Your task to perform on an android device: Search for apple airpods on amazon, select the first entry, and add it to the cart. Image 0: 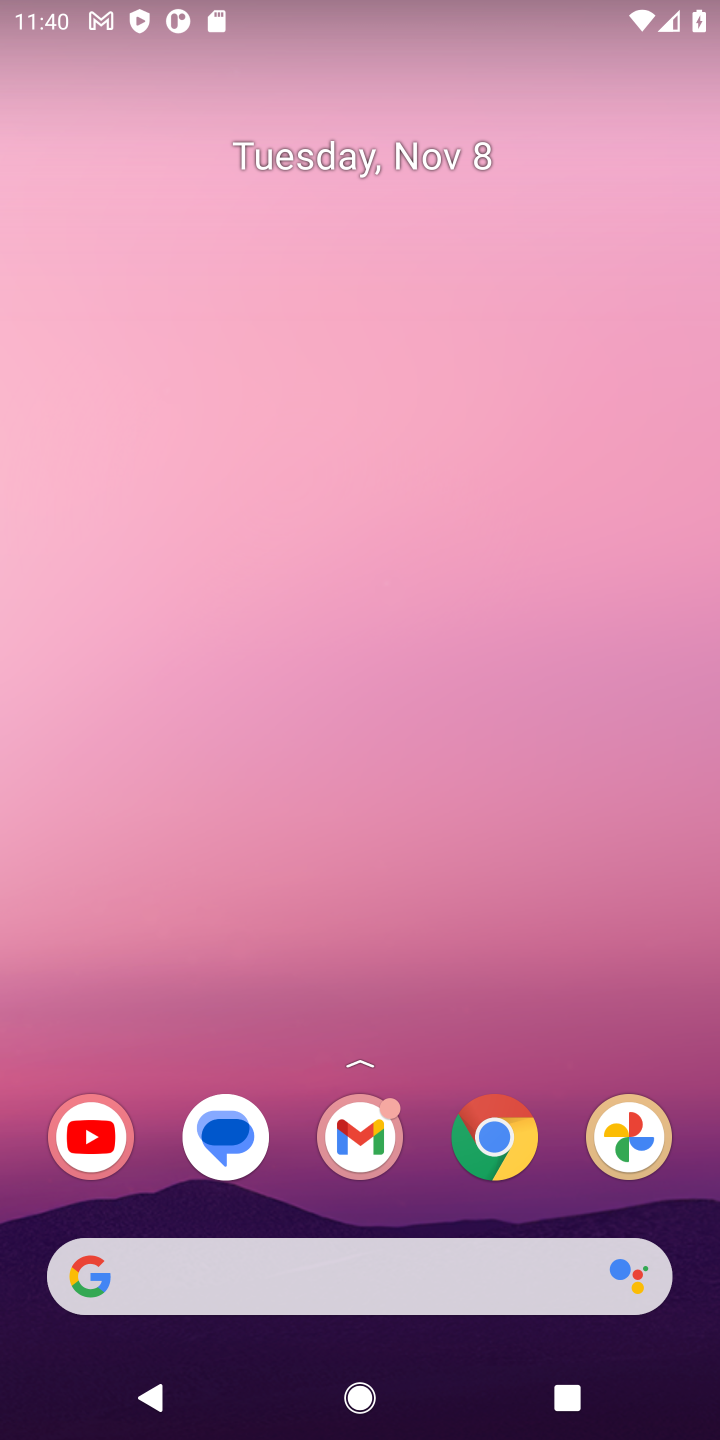
Step 0: click (497, 1140)
Your task to perform on an android device: Search for apple airpods on amazon, select the first entry, and add it to the cart. Image 1: 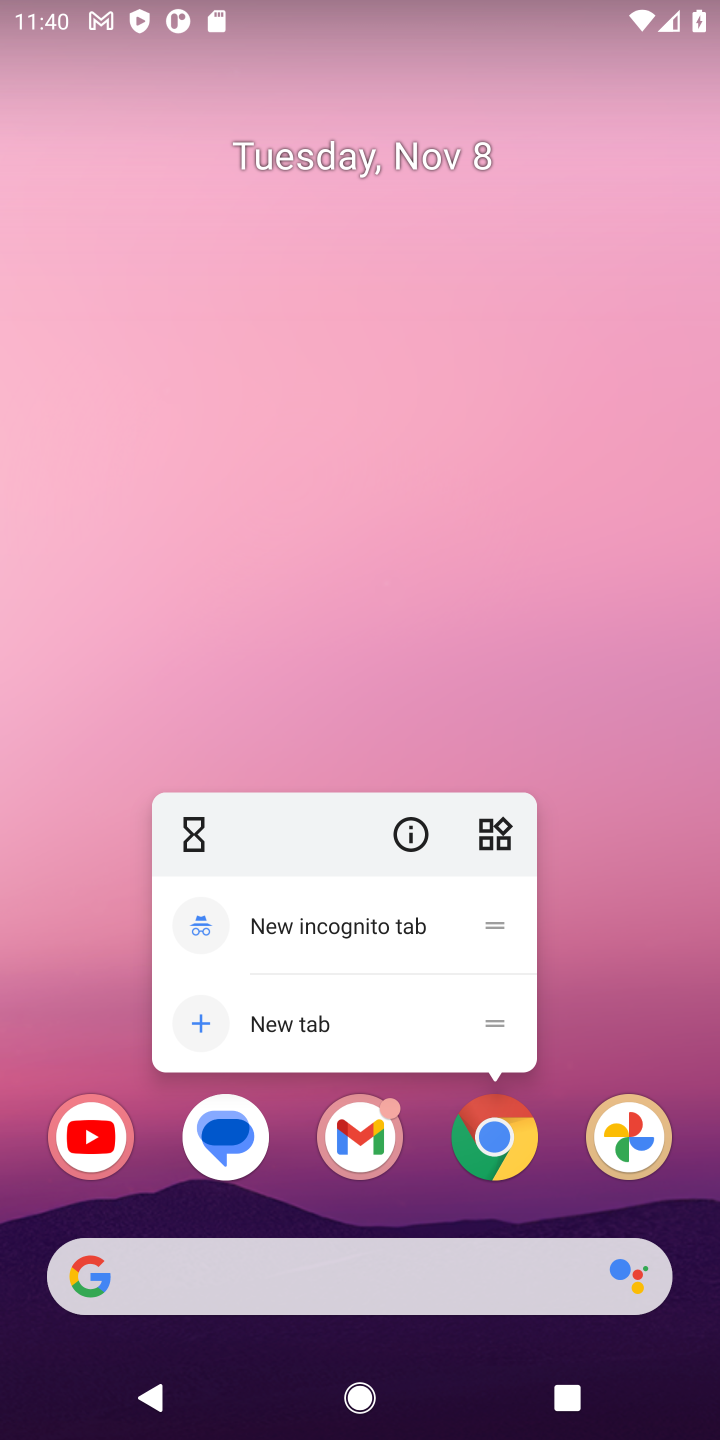
Step 1: click (499, 1134)
Your task to perform on an android device: Search for apple airpods on amazon, select the first entry, and add it to the cart. Image 2: 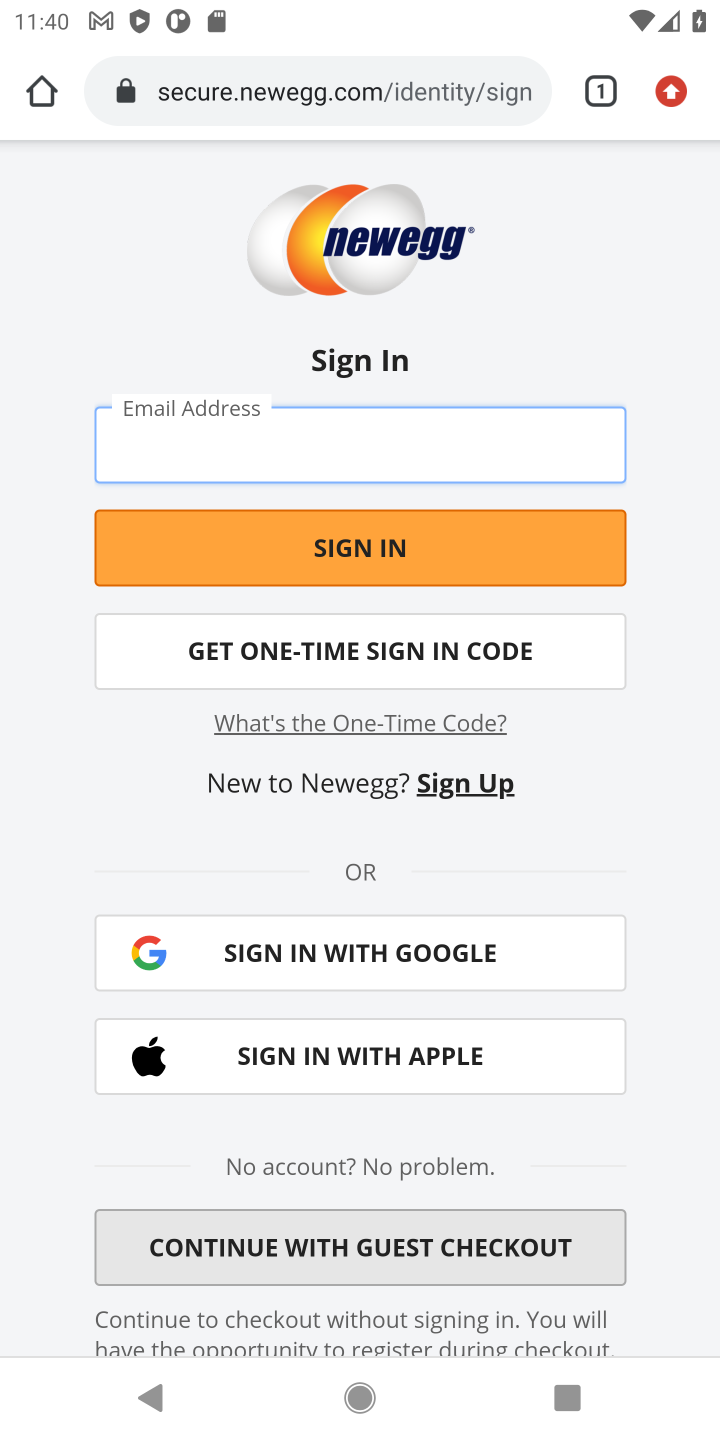
Step 2: click (309, 93)
Your task to perform on an android device: Search for apple airpods on amazon, select the first entry, and add it to the cart. Image 3: 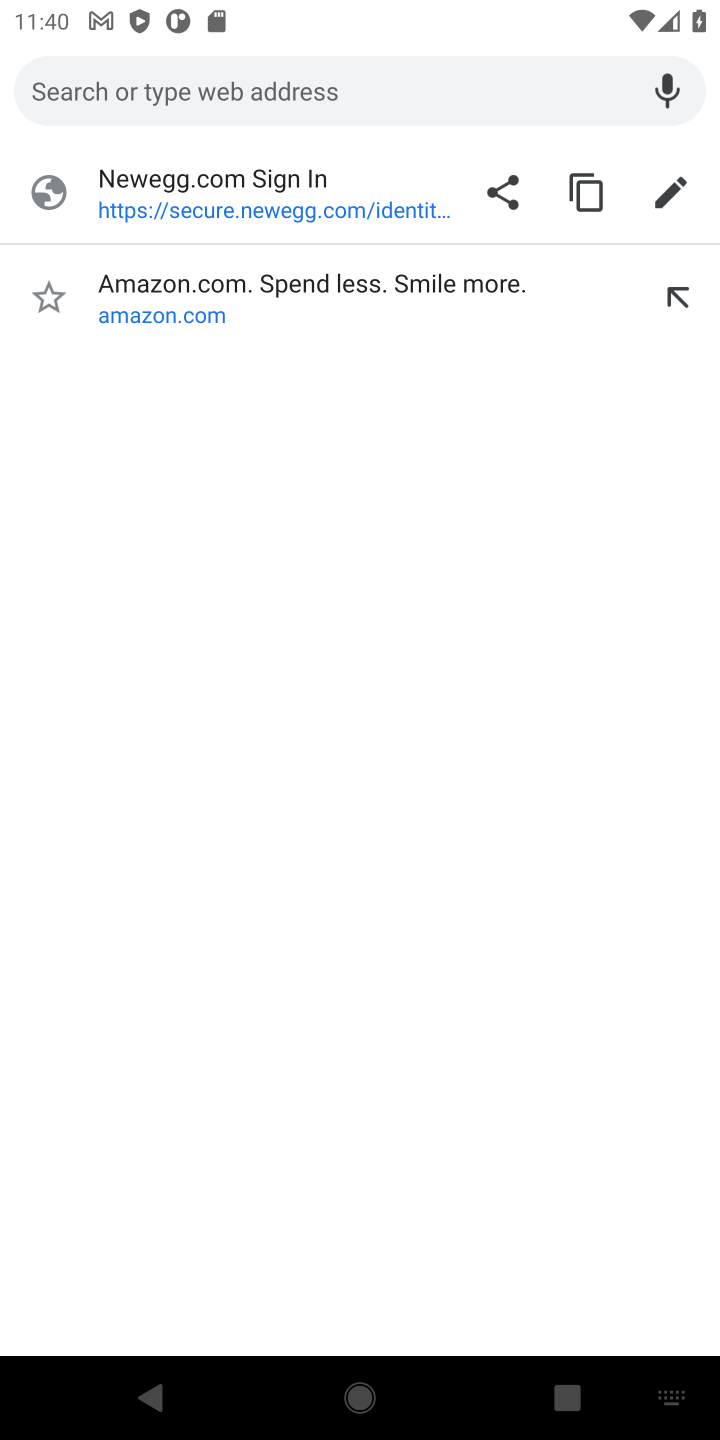
Step 3: type "amazon"
Your task to perform on an android device: Search for apple airpods on amazon, select the first entry, and add it to the cart. Image 4: 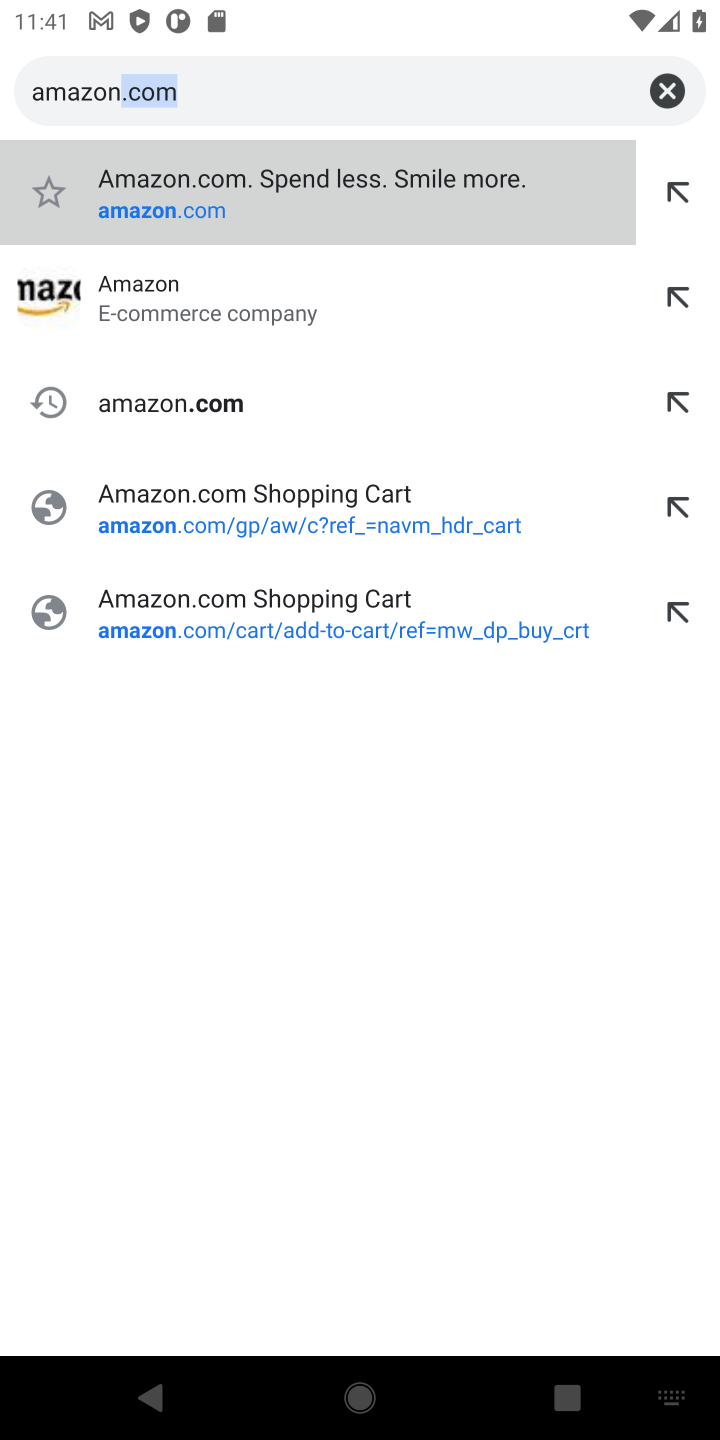
Step 4: click (301, 167)
Your task to perform on an android device: Search for apple airpods on amazon, select the first entry, and add it to the cart. Image 5: 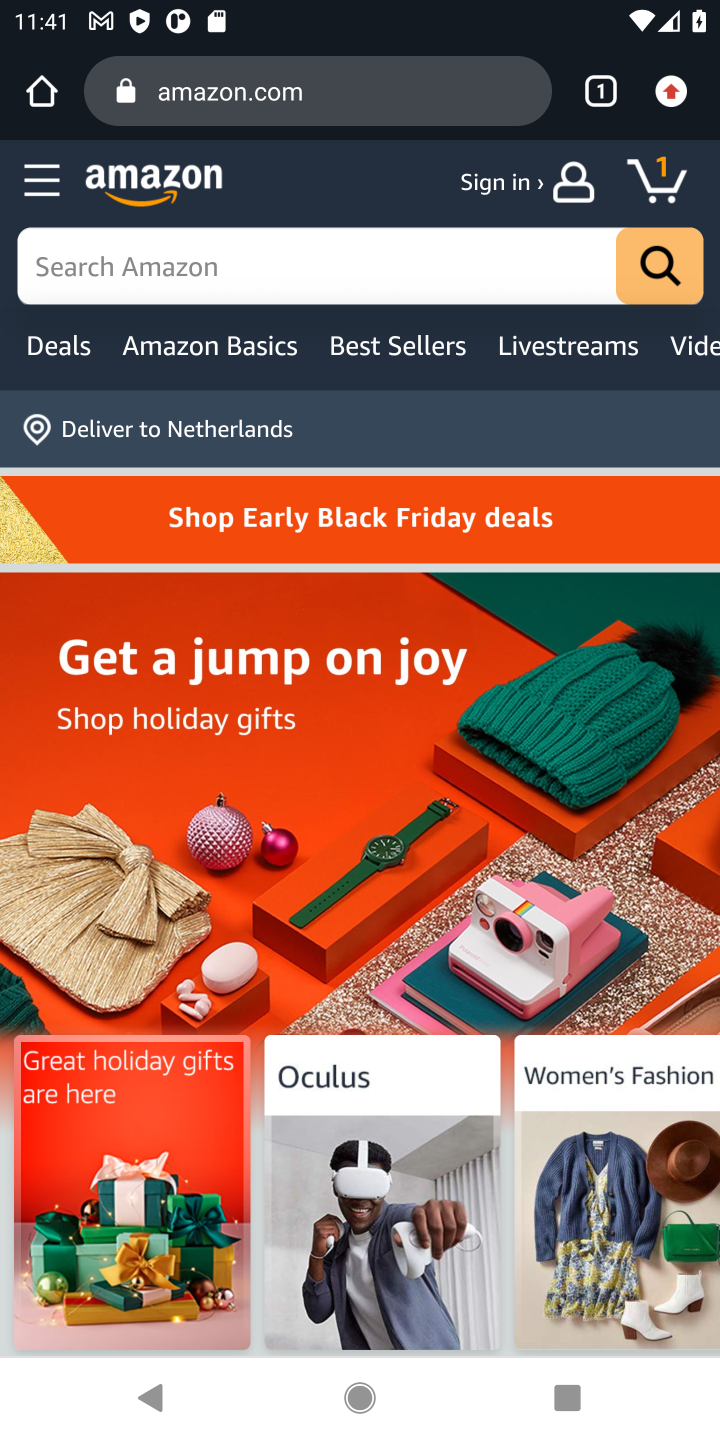
Step 5: click (370, 290)
Your task to perform on an android device: Search for apple airpods on amazon, select the first entry, and add it to the cart. Image 6: 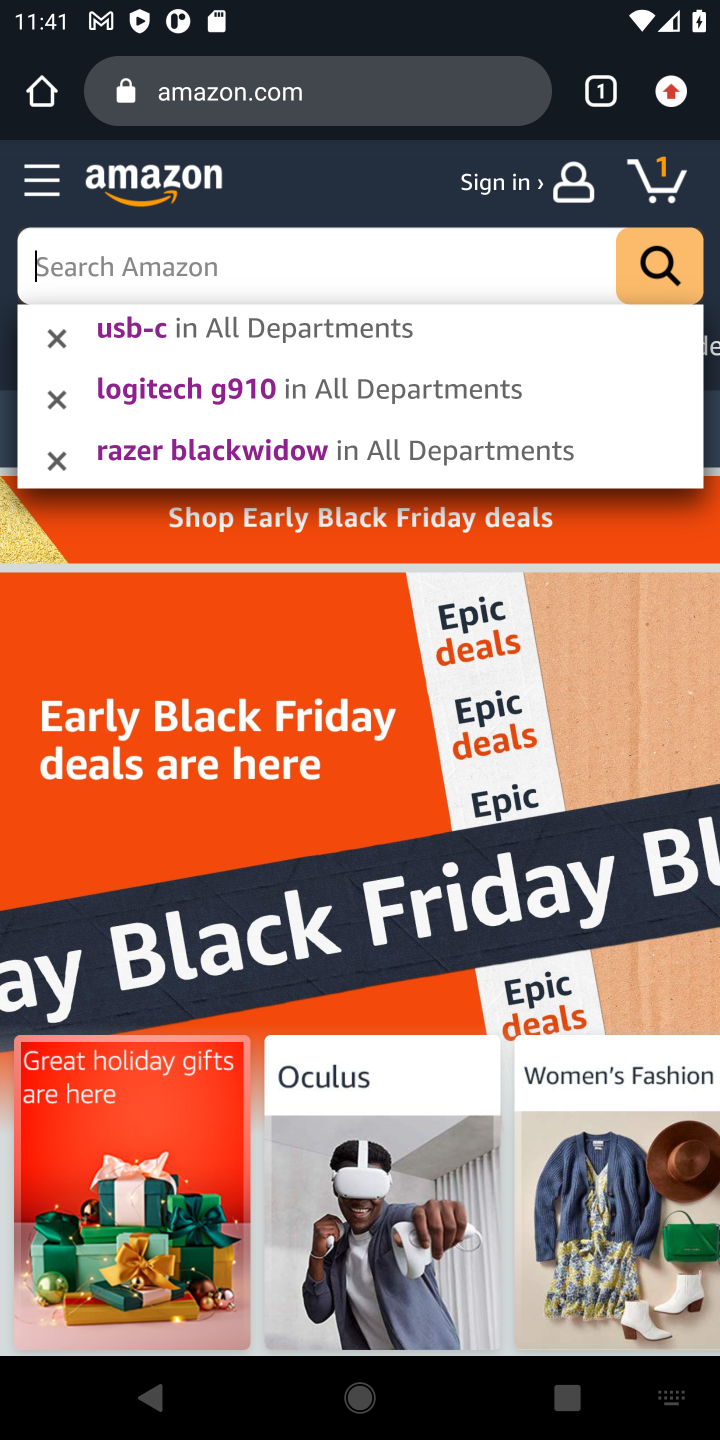
Step 6: type "apple airpods"
Your task to perform on an android device: Search for apple airpods on amazon, select the first entry, and add it to the cart. Image 7: 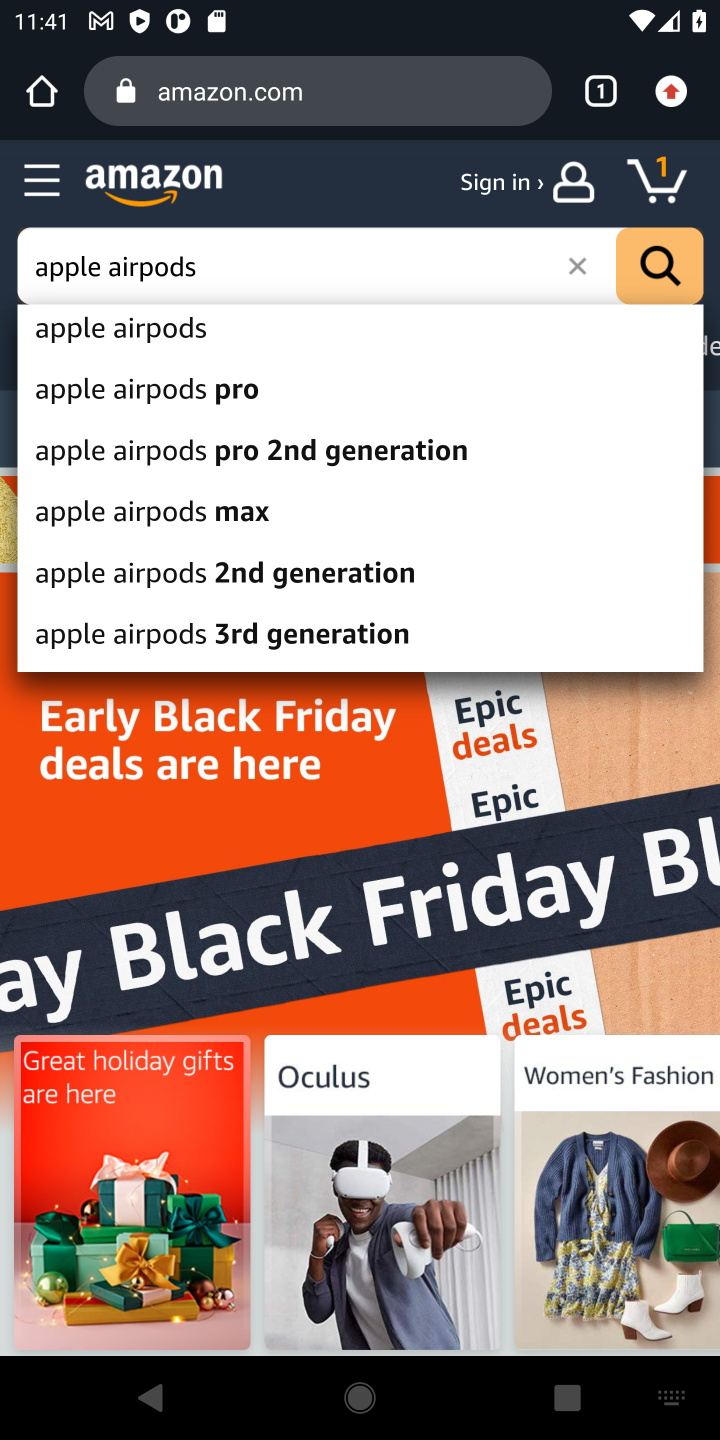
Step 7: click (137, 334)
Your task to perform on an android device: Search for apple airpods on amazon, select the first entry, and add it to the cart. Image 8: 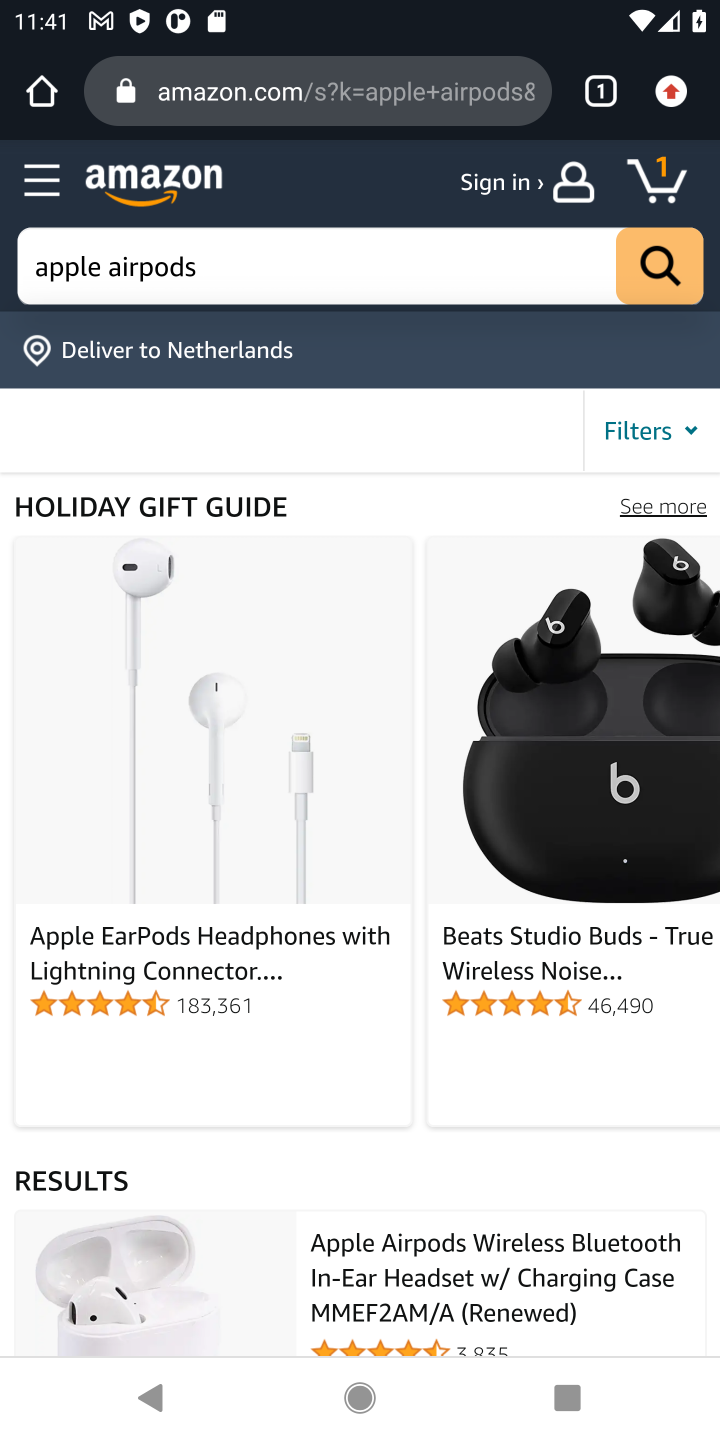
Step 8: click (471, 1267)
Your task to perform on an android device: Search for apple airpods on amazon, select the first entry, and add it to the cart. Image 9: 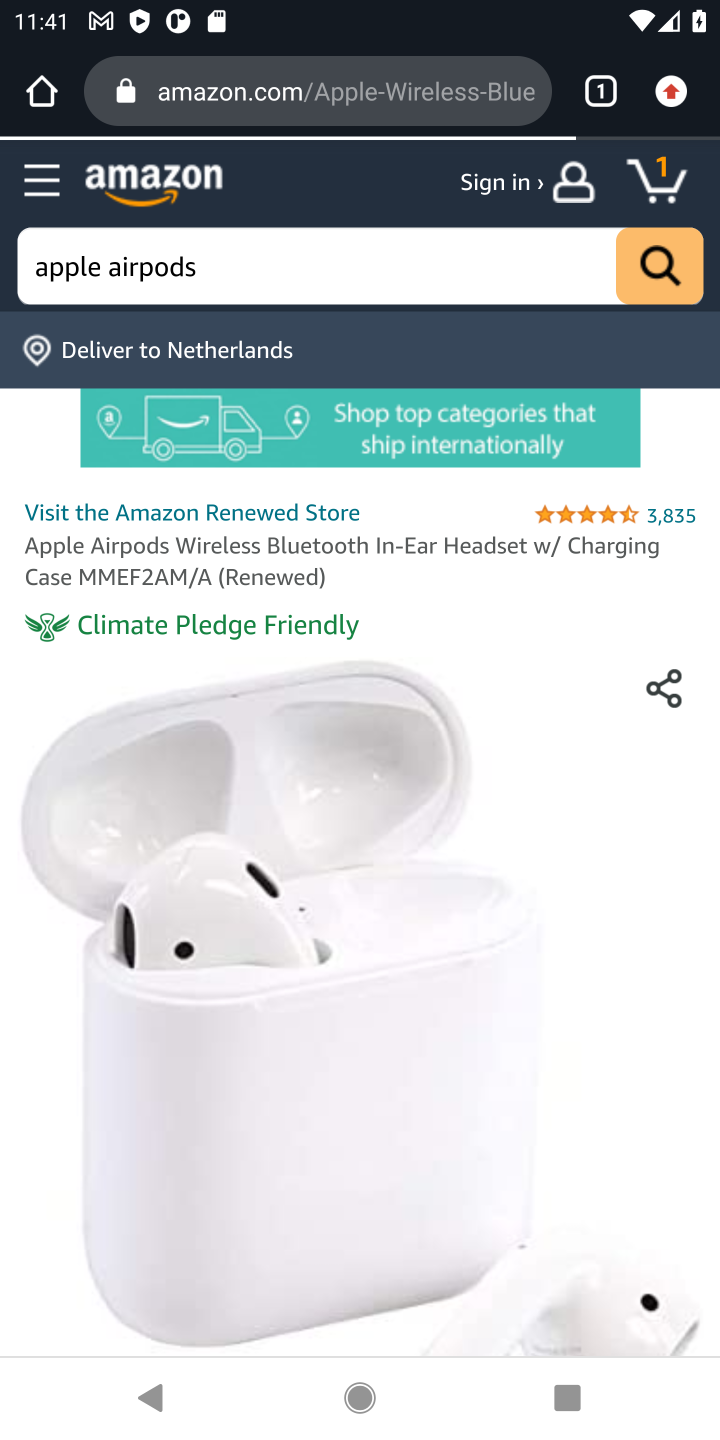
Step 9: drag from (486, 1196) to (487, 615)
Your task to perform on an android device: Search for apple airpods on amazon, select the first entry, and add it to the cart. Image 10: 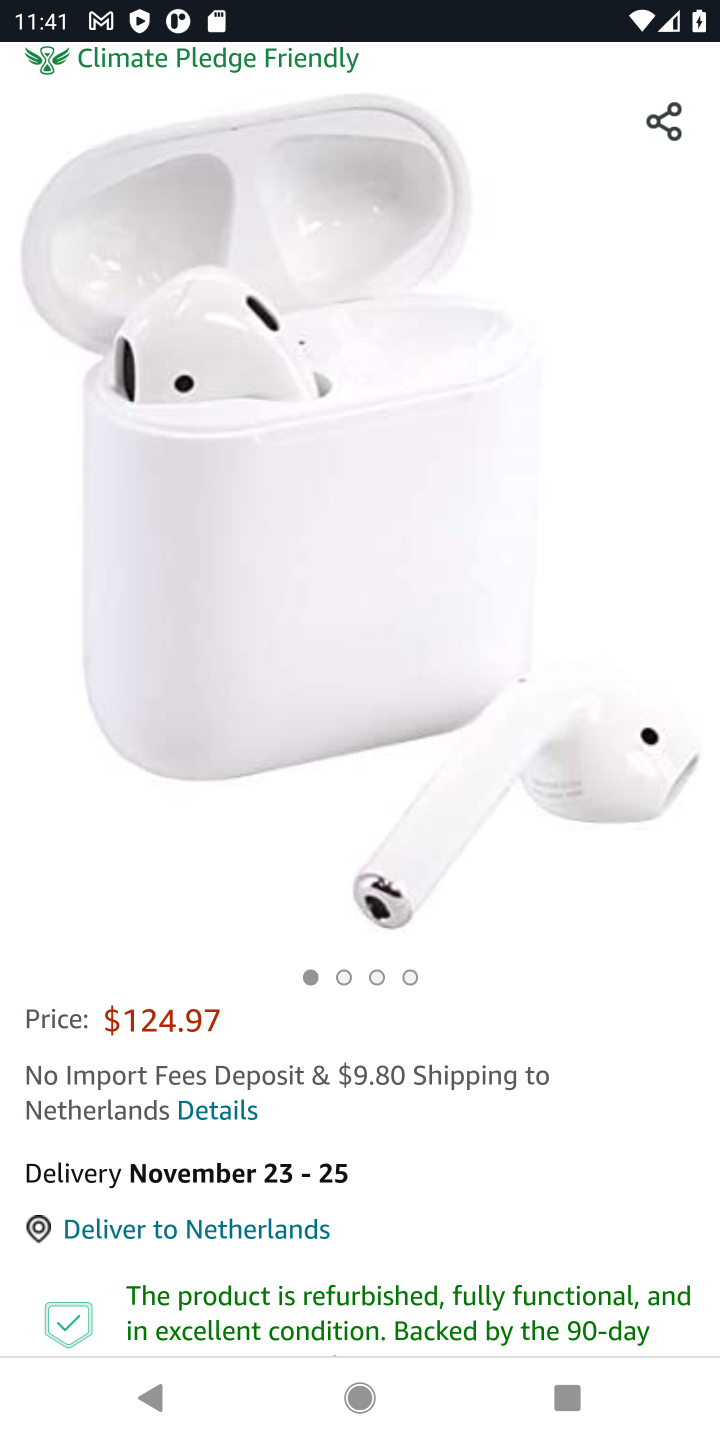
Step 10: drag from (457, 1052) to (487, 561)
Your task to perform on an android device: Search for apple airpods on amazon, select the first entry, and add it to the cart. Image 11: 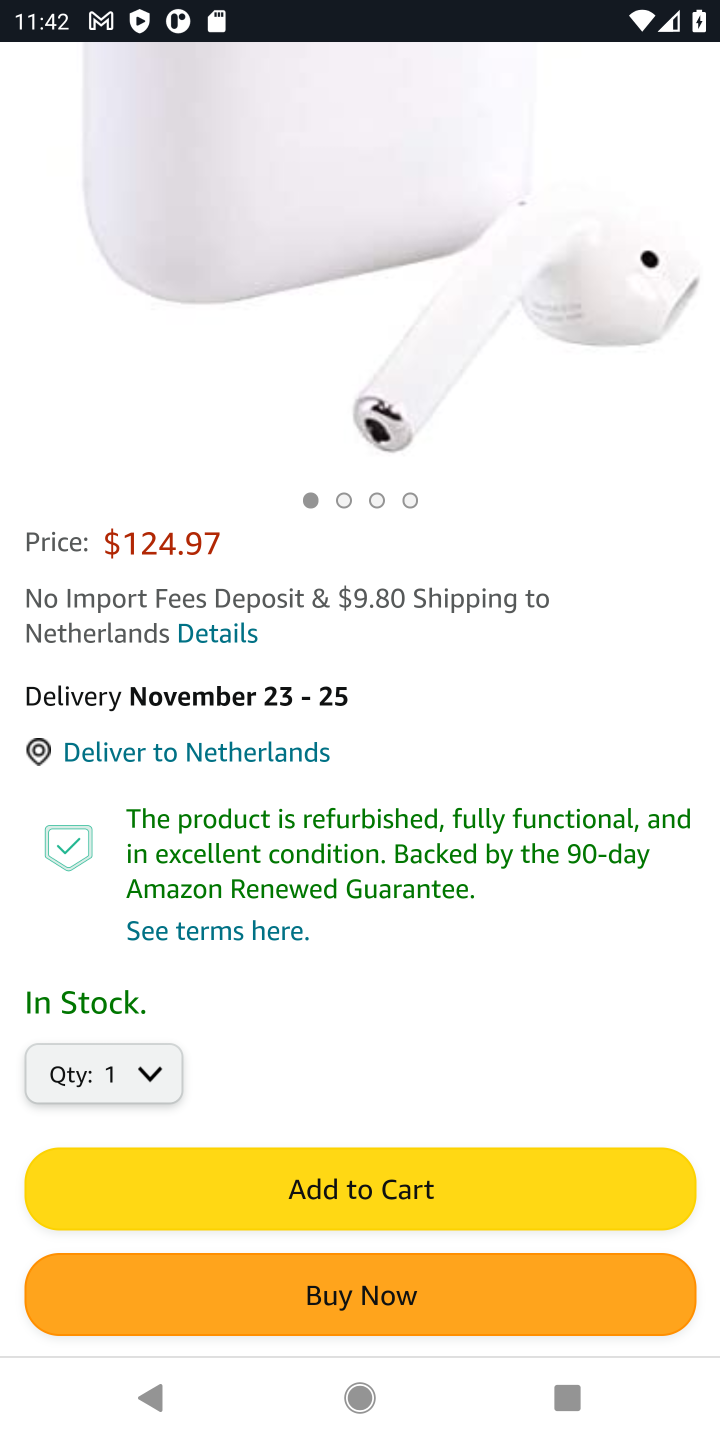
Step 11: click (395, 1196)
Your task to perform on an android device: Search for apple airpods on amazon, select the first entry, and add it to the cart. Image 12: 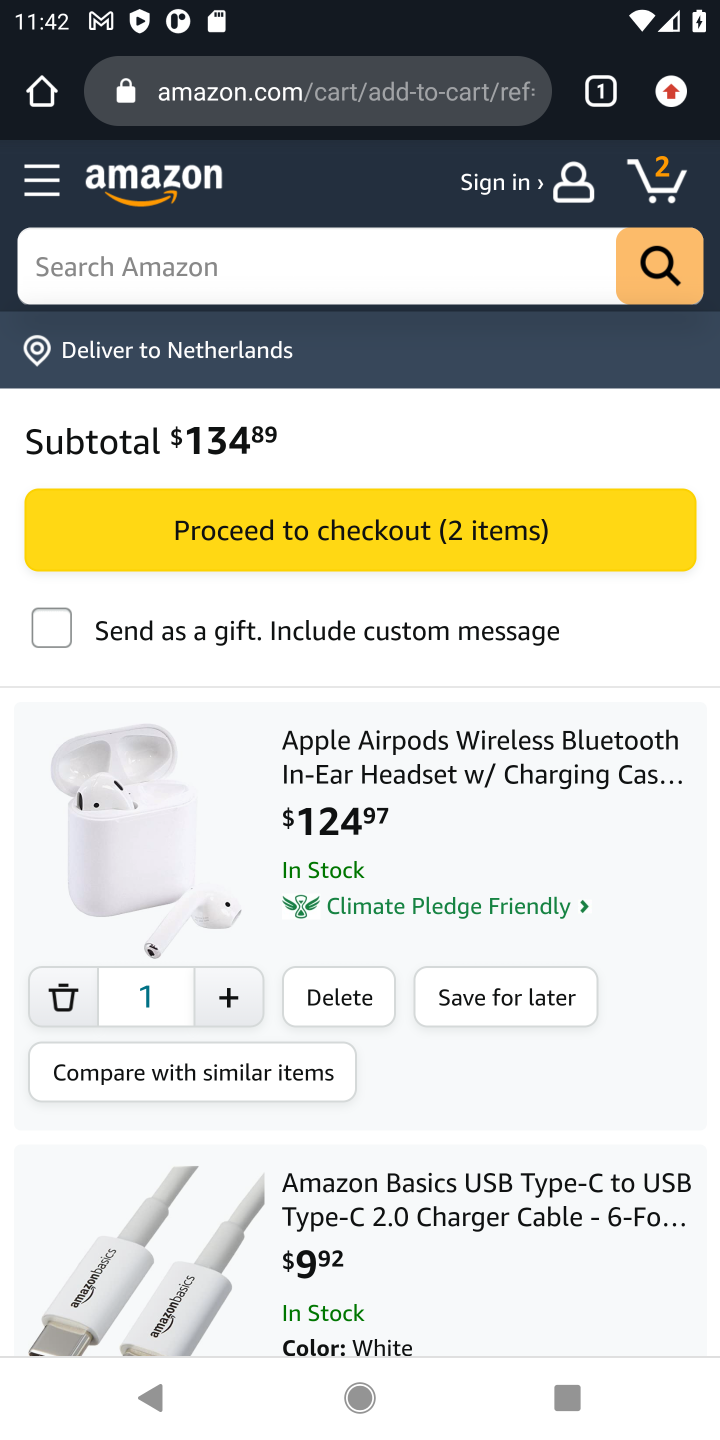
Step 12: task complete